Your task to perform on an android device: open chrome and create a bookmark for the current page Image 0: 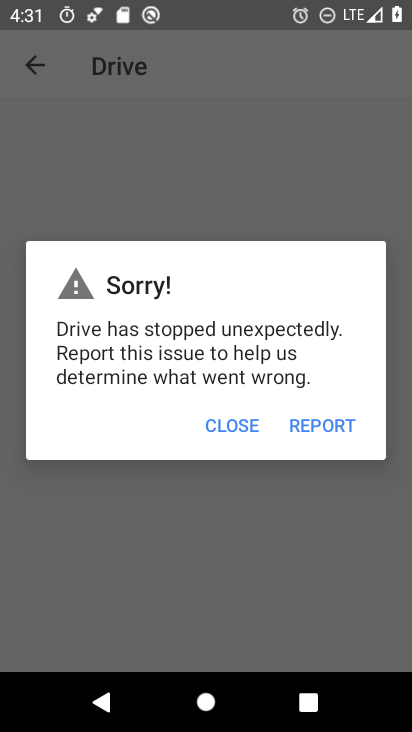
Step 0: press home button
Your task to perform on an android device: open chrome and create a bookmark for the current page Image 1: 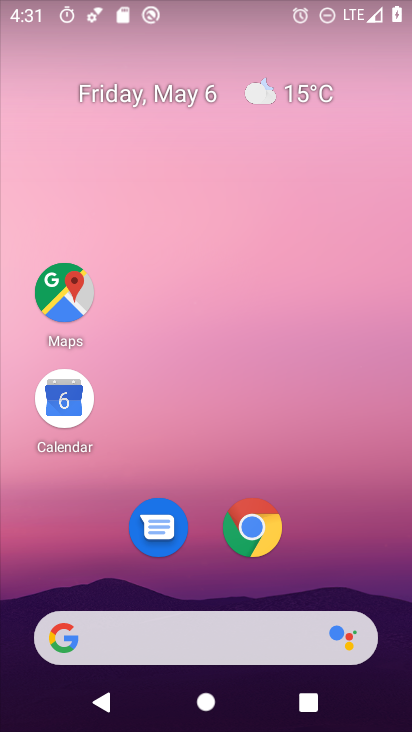
Step 1: drag from (343, 471) to (348, 64)
Your task to perform on an android device: open chrome and create a bookmark for the current page Image 2: 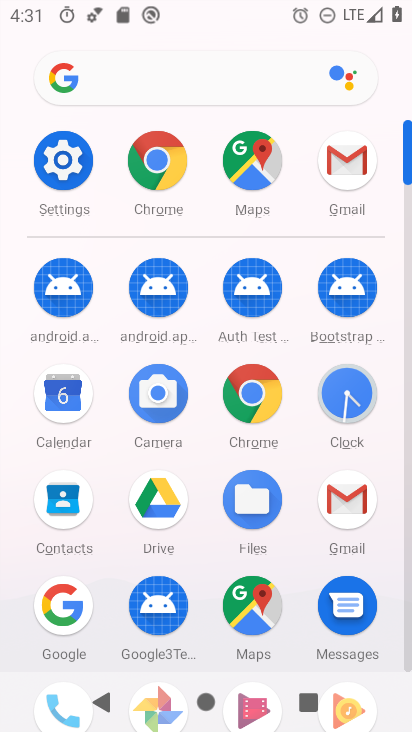
Step 2: click (246, 384)
Your task to perform on an android device: open chrome and create a bookmark for the current page Image 3: 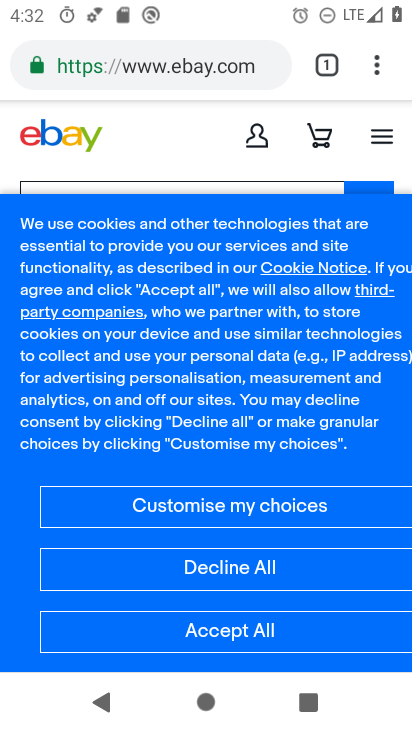
Step 3: task complete